Your task to perform on an android device: When is my next meeting? Image 0: 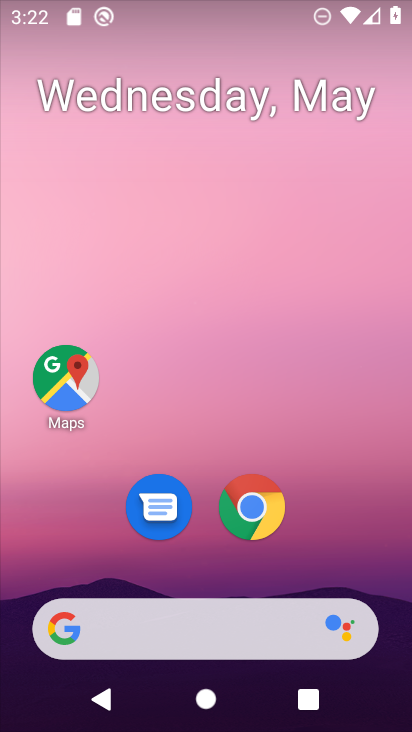
Step 0: drag from (234, 618) to (258, 90)
Your task to perform on an android device: When is my next meeting? Image 1: 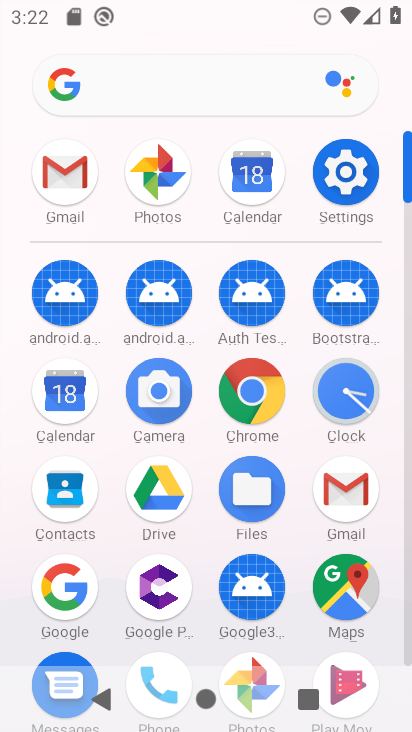
Step 1: click (67, 399)
Your task to perform on an android device: When is my next meeting? Image 2: 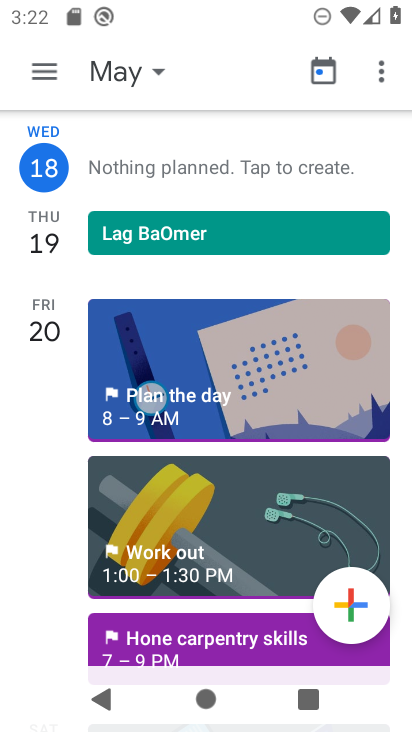
Step 2: task complete